Your task to perform on an android device: set the timer Image 0: 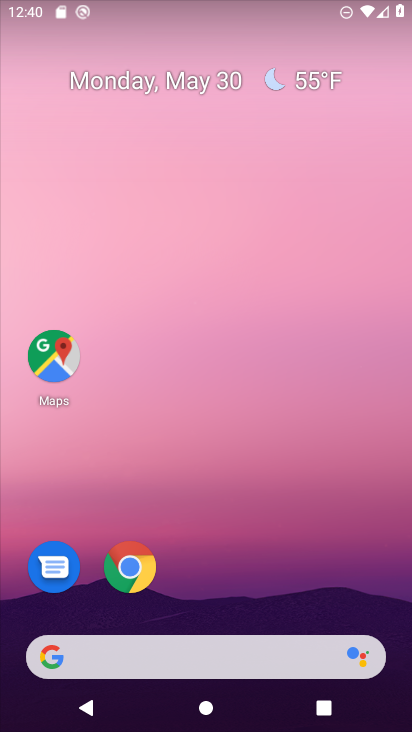
Step 0: drag from (213, 606) to (204, 15)
Your task to perform on an android device: set the timer Image 1: 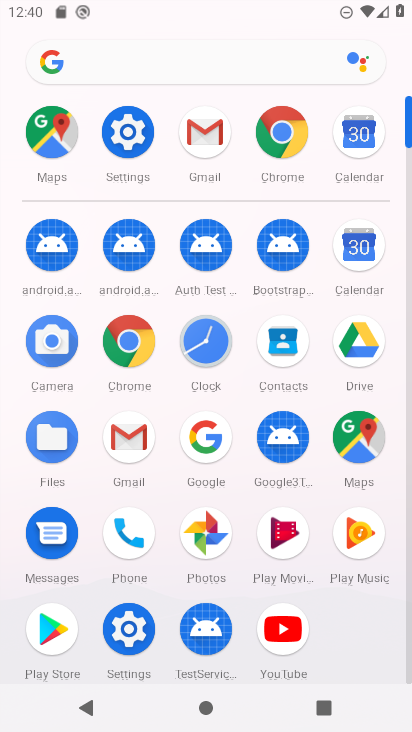
Step 1: click (207, 334)
Your task to perform on an android device: set the timer Image 2: 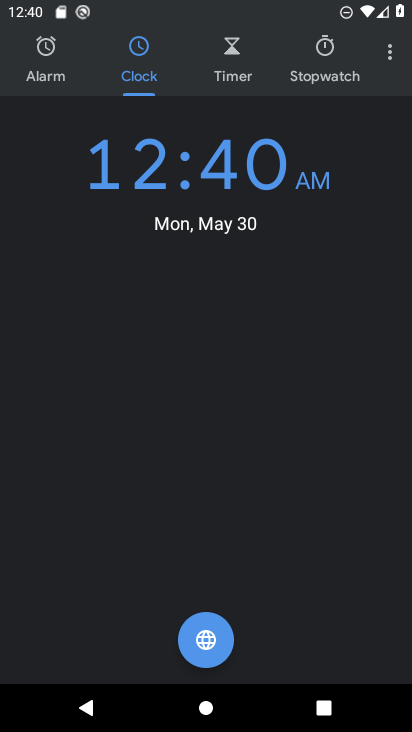
Step 2: click (226, 49)
Your task to perform on an android device: set the timer Image 3: 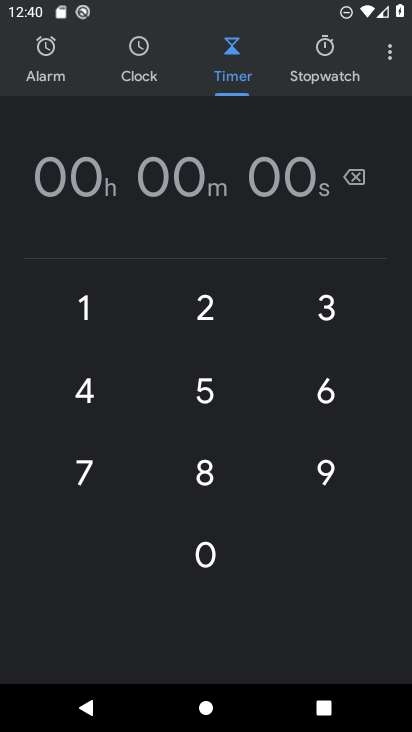
Step 3: click (327, 301)
Your task to perform on an android device: set the timer Image 4: 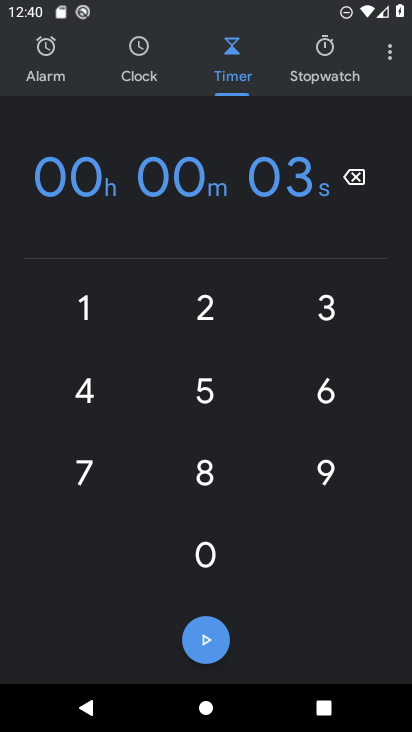
Step 4: click (203, 560)
Your task to perform on an android device: set the timer Image 5: 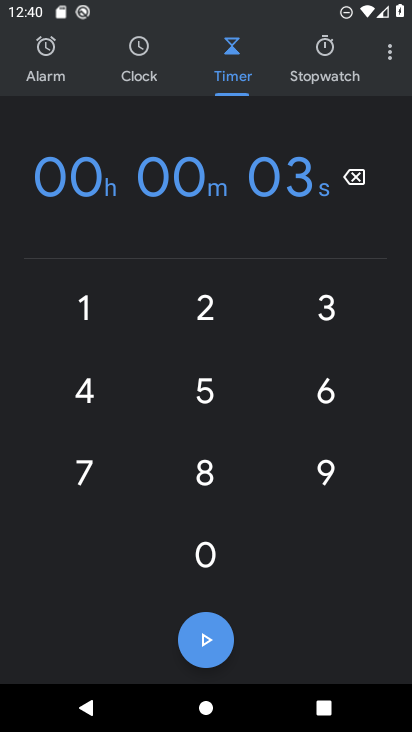
Step 5: click (203, 560)
Your task to perform on an android device: set the timer Image 6: 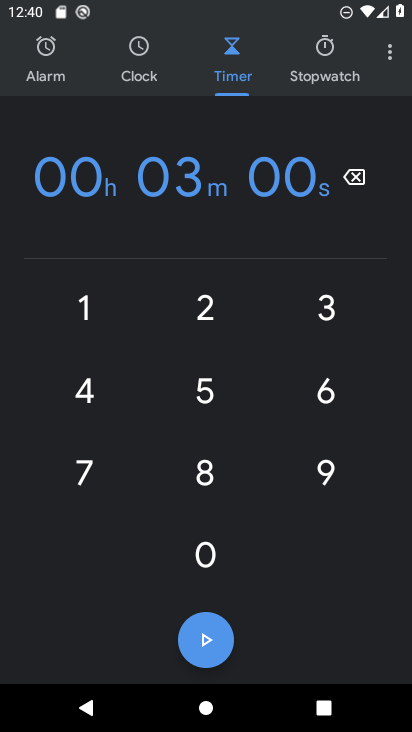
Step 6: click (205, 633)
Your task to perform on an android device: set the timer Image 7: 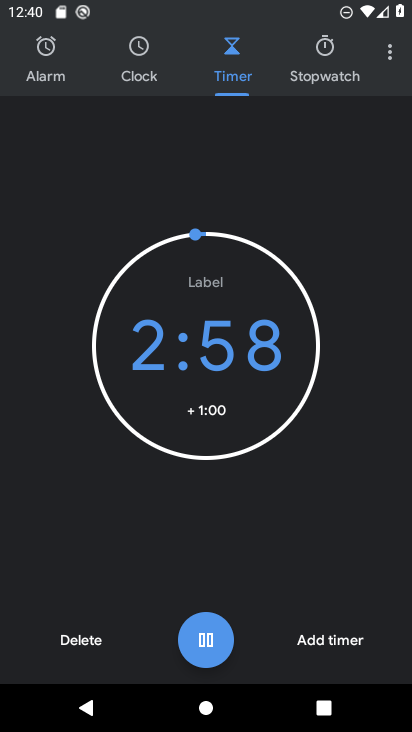
Step 7: task complete